Your task to perform on an android device: add a label to a message in the gmail app Image 0: 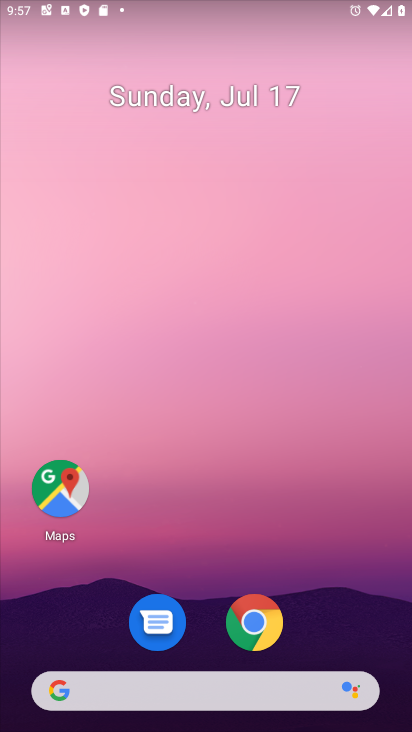
Step 0: drag from (146, 521) to (166, 179)
Your task to perform on an android device: add a label to a message in the gmail app Image 1: 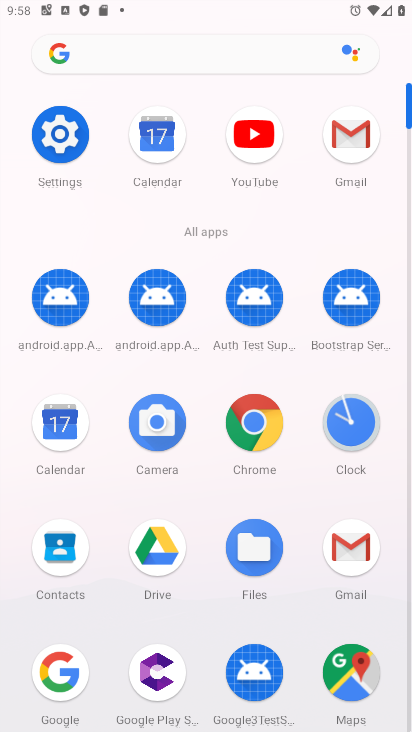
Step 1: click (350, 134)
Your task to perform on an android device: add a label to a message in the gmail app Image 2: 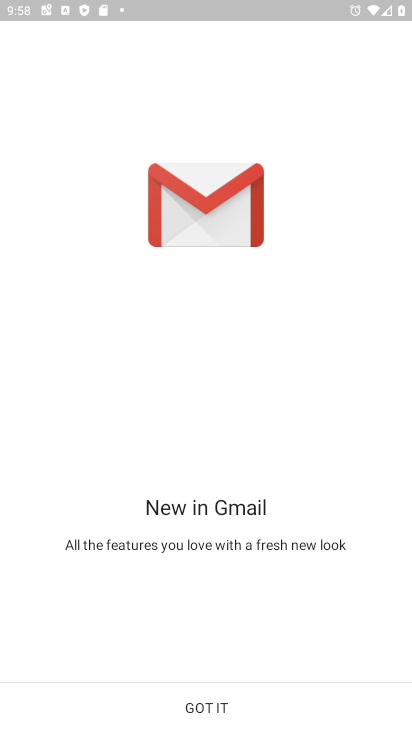
Step 2: click (168, 712)
Your task to perform on an android device: add a label to a message in the gmail app Image 3: 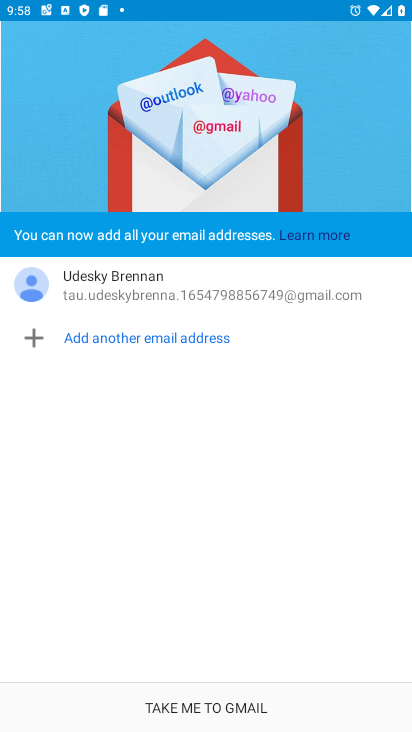
Step 3: click (169, 710)
Your task to perform on an android device: add a label to a message in the gmail app Image 4: 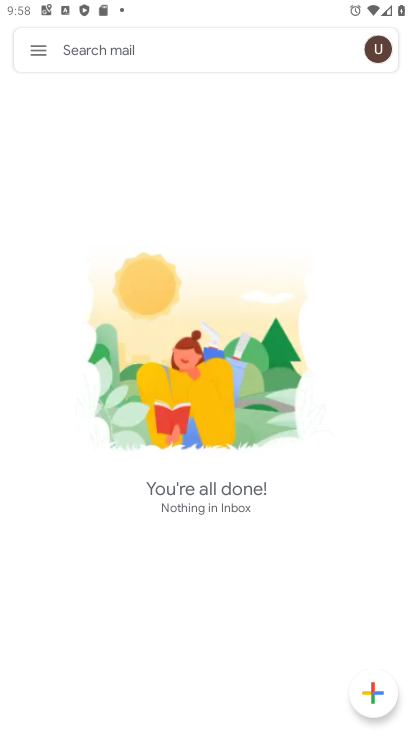
Step 4: task complete